Your task to perform on an android device: turn off location history Image 0: 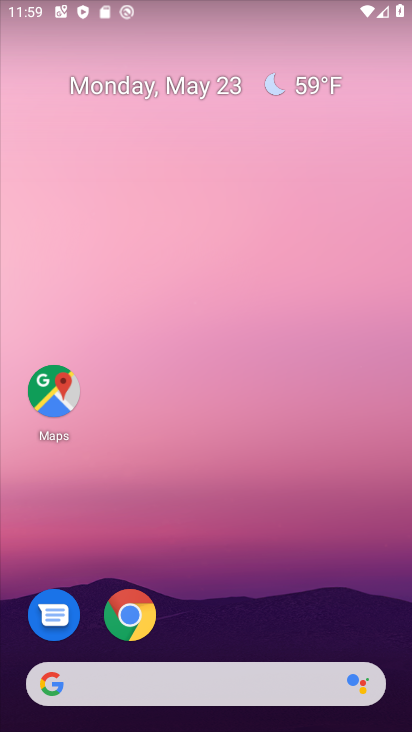
Step 0: drag from (279, 554) to (212, 58)
Your task to perform on an android device: turn off location history Image 1: 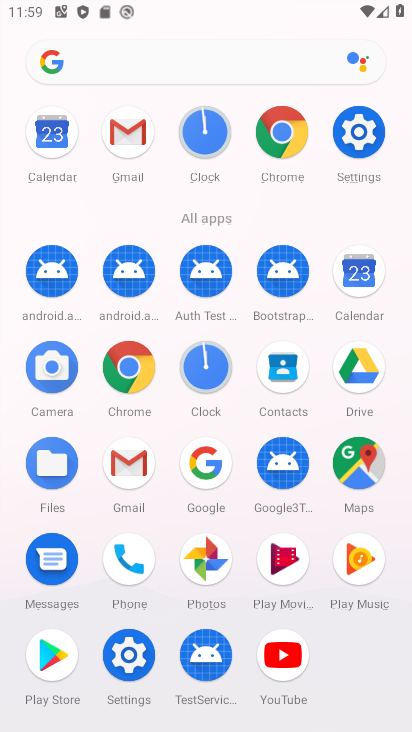
Step 1: drag from (15, 594) to (3, 201)
Your task to perform on an android device: turn off location history Image 2: 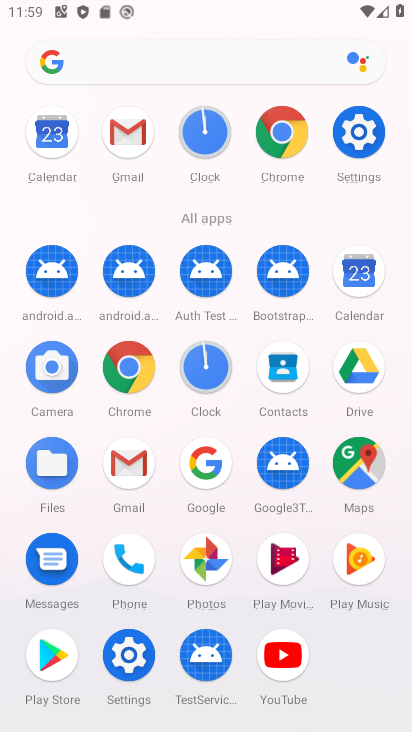
Step 2: click (129, 652)
Your task to perform on an android device: turn off location history Image 3: 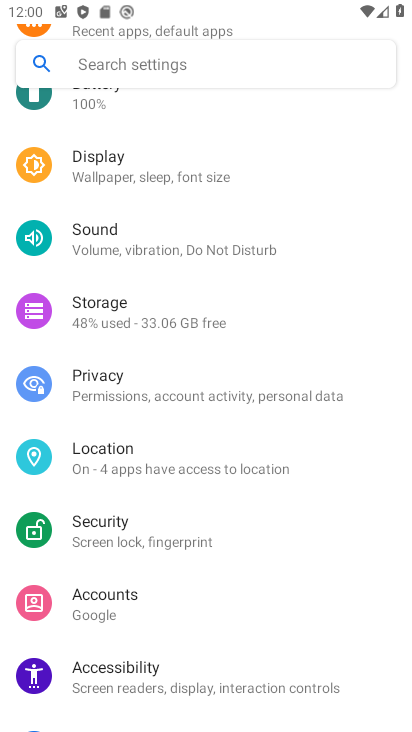
Step 3: drag from (207, 544) to (255, 137)
Your task to perform on an android device: turn off location history Image 4: 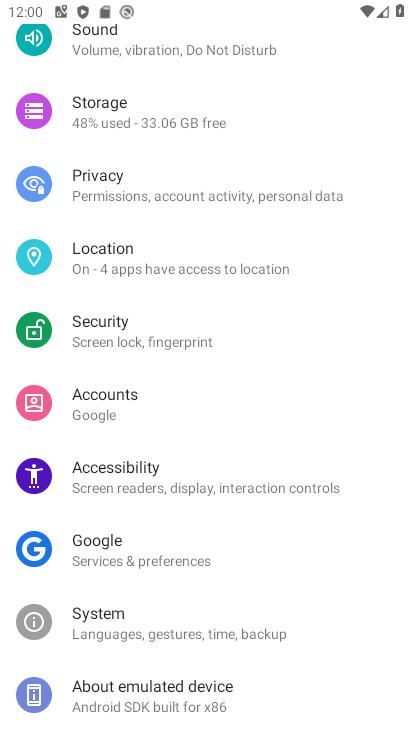
Step 4: click (133, 266)
Your task to perform on an android device: turn off location history Image 5: 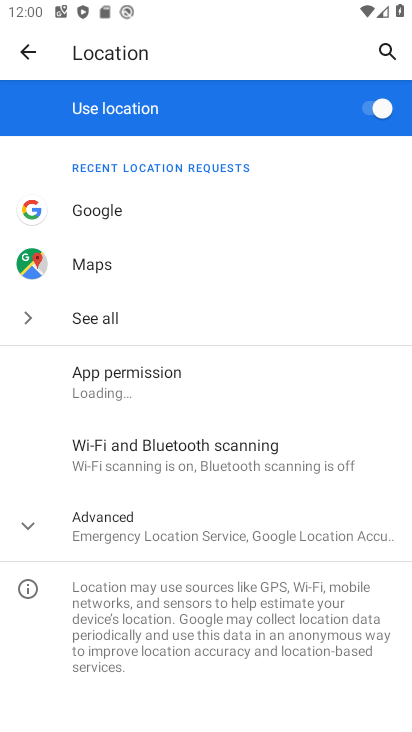
Step 5: click (59, 534)
Your task to perform on an android device: turn off location history Image 6: 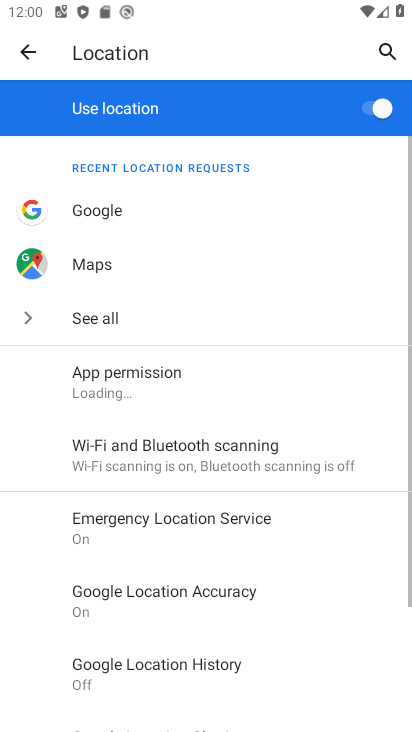
Step 6: drag from (187, 613) to (218, 236)
Your task to perform on an android device: turn off location history Image 7: 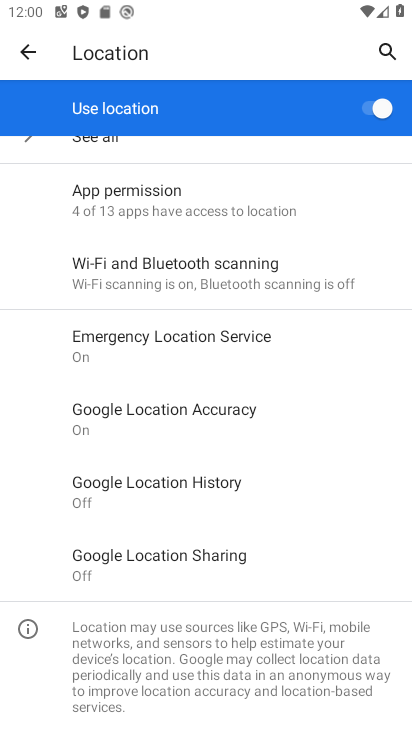
Step 7: click (204, 475)
Your task to perform on an android device: turn off location history Image 8: 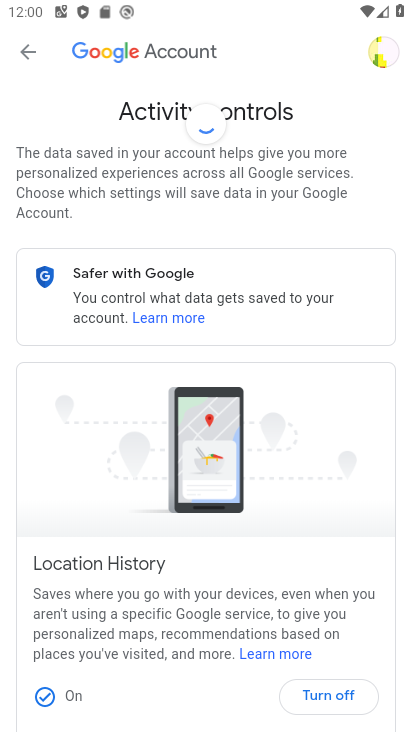
Step 8: drag from (226, 560) to (225, 145)
Your task to perform on an android device: turn off location history Image 9: 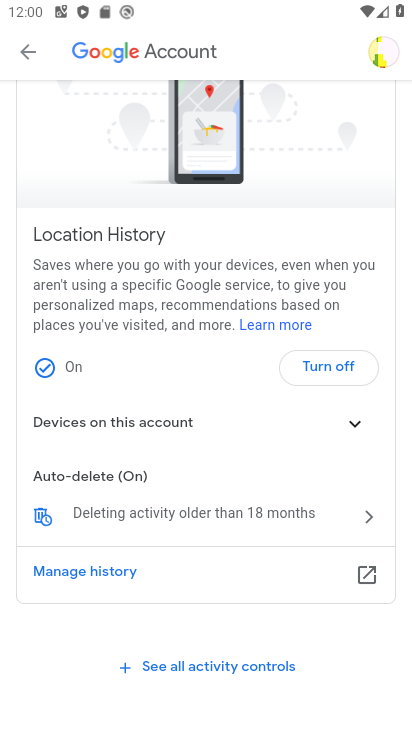
Step 9: drag from (234, 161) to (208, 526)
Your task to perform on an android device: turn off location history Image 10: 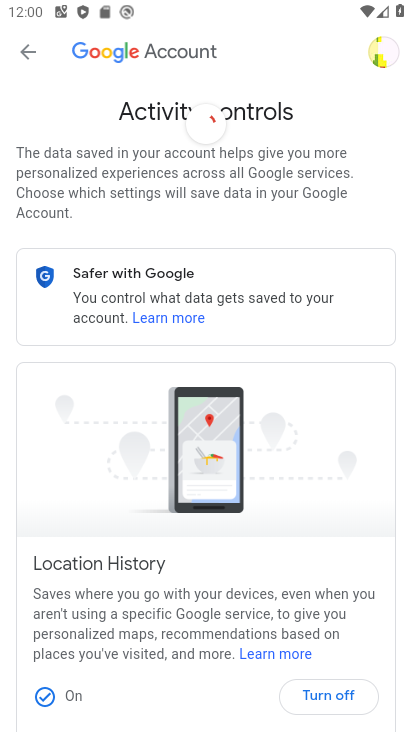
Step 10: click (329, 688)
Your task to perform on an android device: turn off location history Image 11: 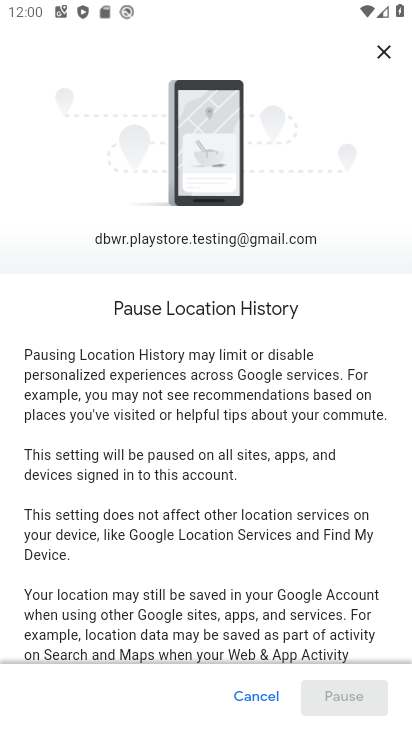
Step 11: drag from (270, 533) to (227, 89)
Your task to perform on an android device: turn off location history Image 12: 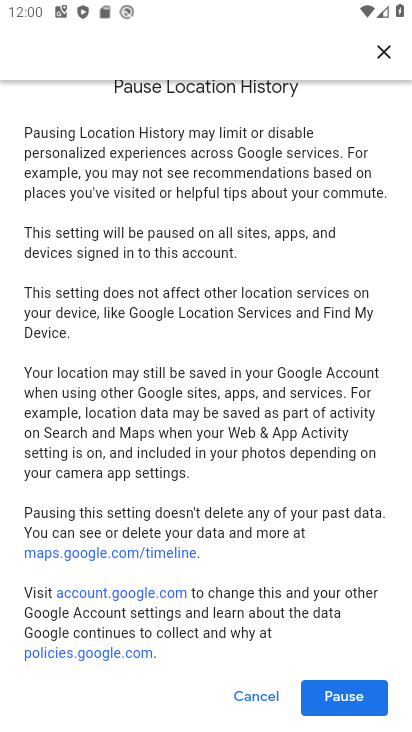
Step 12: drag from (153, 515) to (185, 145)
Your task to perform on an android device: turn off location history Image 13: 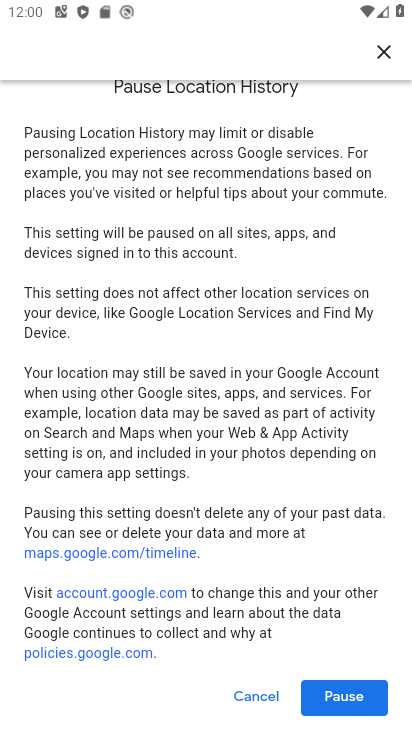
Step 13: click (337, 694)
Your task to perform on an android device: turn off location history Image 14: 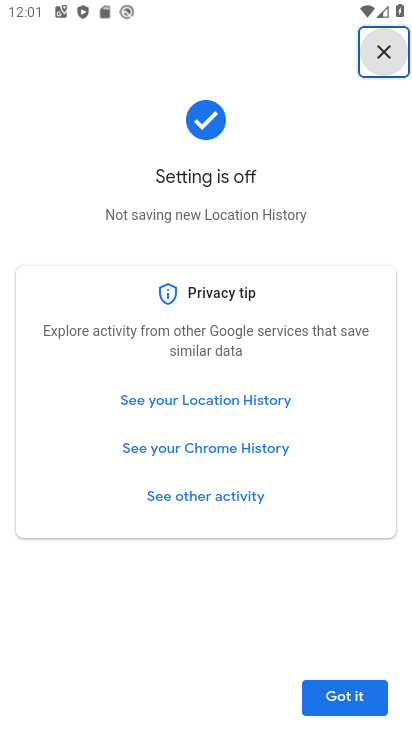
Step 14: task complete